Your task to perform on an android device: What is the news today? Image 0: 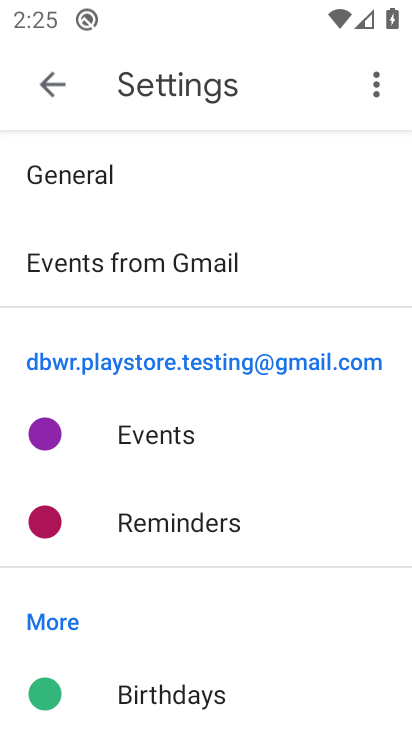
Step 0: press home button
Your task to perform on an android device: What is the news today? Image 1: 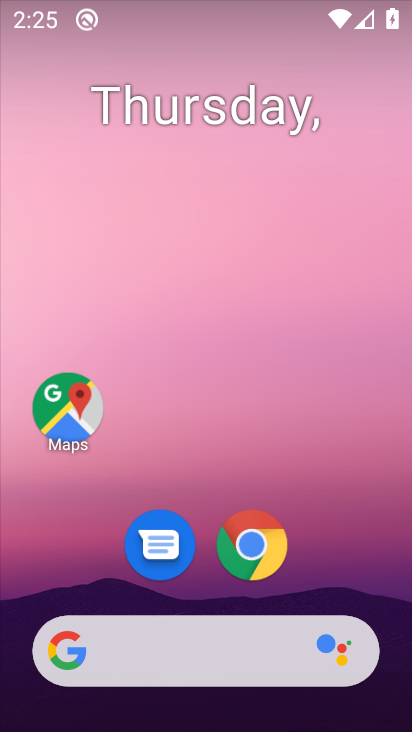
Step 1: drag from (223, 615) to (311, 63)
Your task to perform on an android device: What is the news today? Image 2: 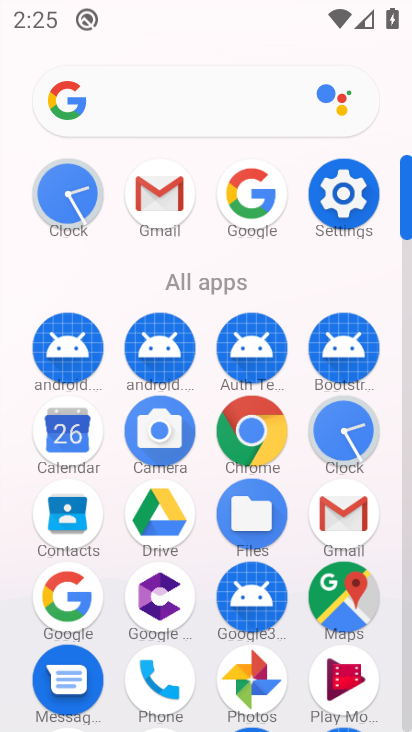
Step 2: click (69, 589)
Your task to perform on an android device: What is the news today? Image 3: 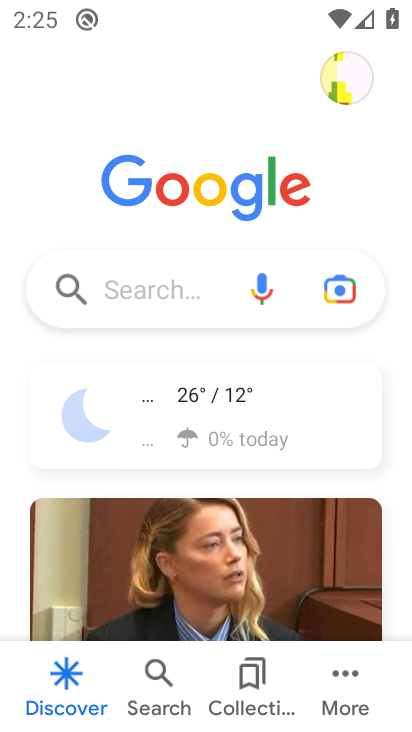
Step 3: click (161, 295)
Your task to perform on an android device: What is the news today? Image 4: 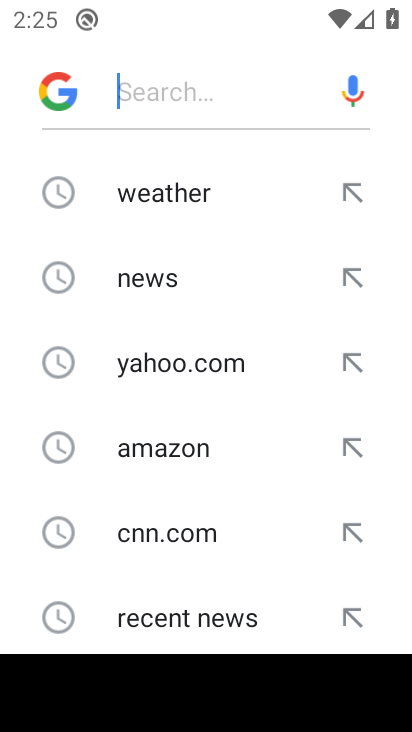
Step 4: click (161, 290)
Your task to perform on an android device: What is the news today? Image 5: 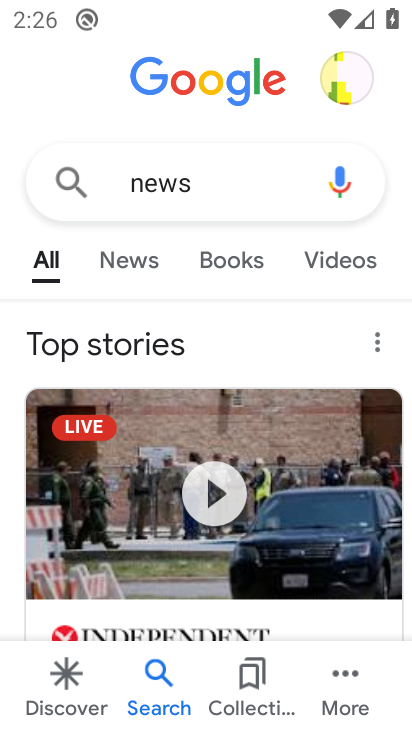
Step 5: task complete